Your task to perform on an android device: Search for seafood restaurants on Google Maps Image 0: 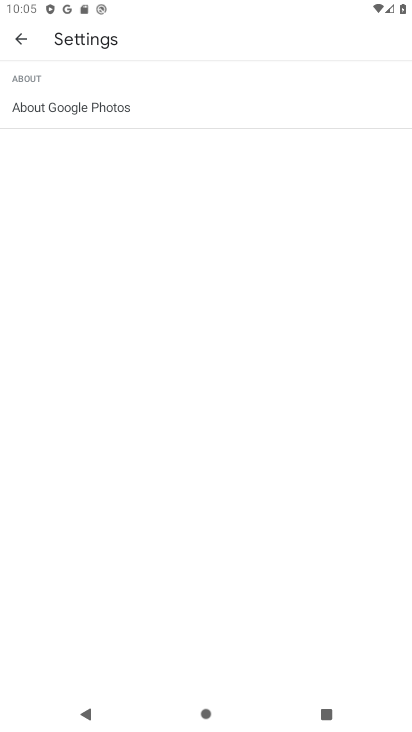
Step 0: press home button
Your task to perform on an android device: Search for seafood restaurants on Google Maps Image 1: 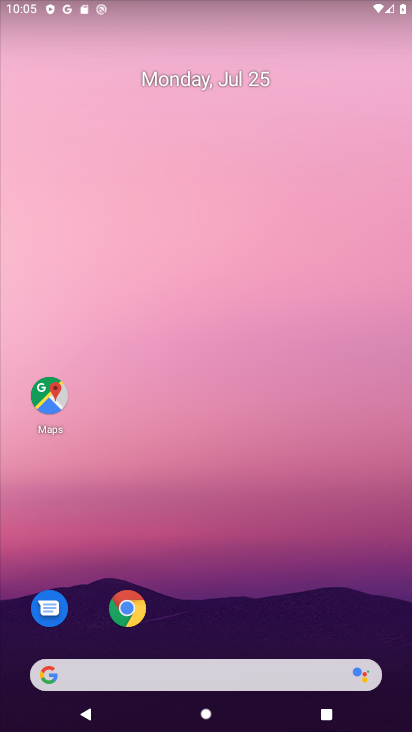
Step 1: drag from (234, 333) to (245, 173)
Your task to perform on an android device: Search for seafood restaurants on Google Maps Image 2: 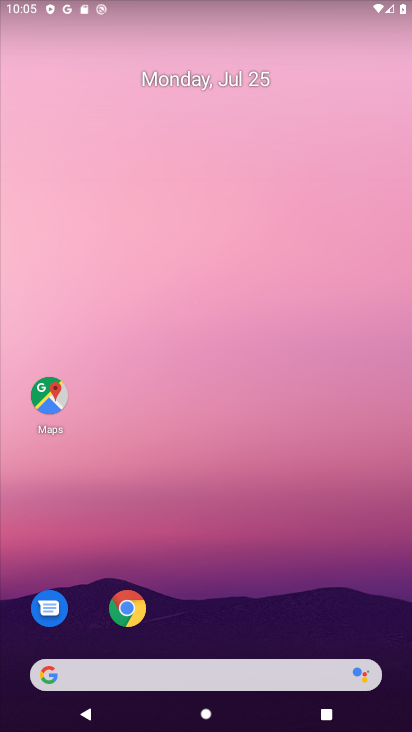
Step 2: drag from (191, 681) to (286, 8)
Your task to perform on an android device: Search for seafood restaurants on Google Maps Image 3: 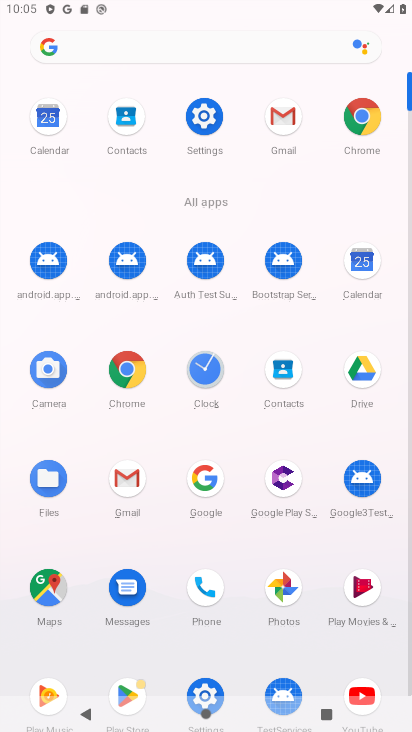
Step 3: click (45, 591)
Your task to perform on an android device: Search for seafood restaurants on Google Maps Image 4: 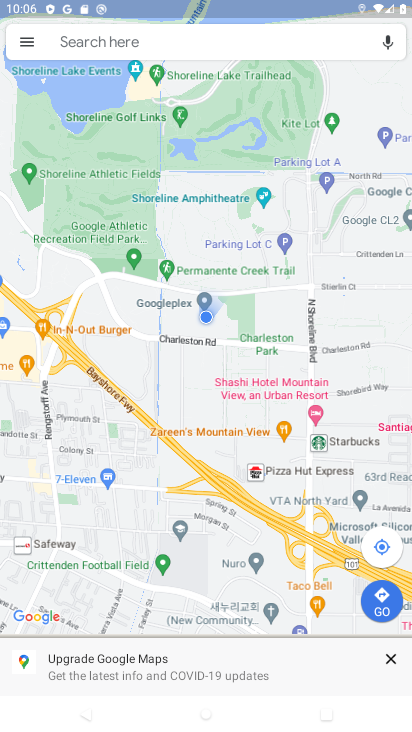
Step 4: click (232, 45)
Your task to perform on an android device: Search for seafood restaurants on Google Maps Image 5: 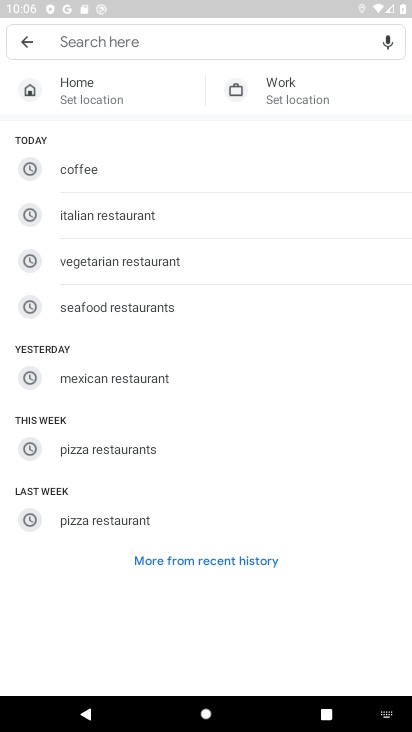
Step 5: click (173, 306)
Your task to perform on an android device: Search for seafood restaurants on Google Maps Image 6: 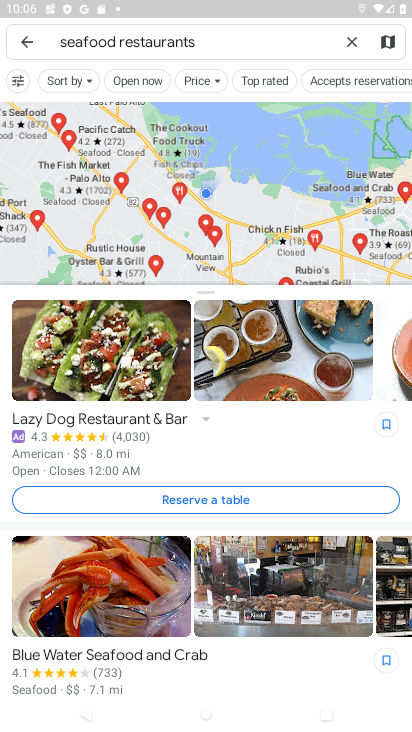
Step 6: task complete